Your task to perform on an android device: turn pop-ups off in chrome Image 0: 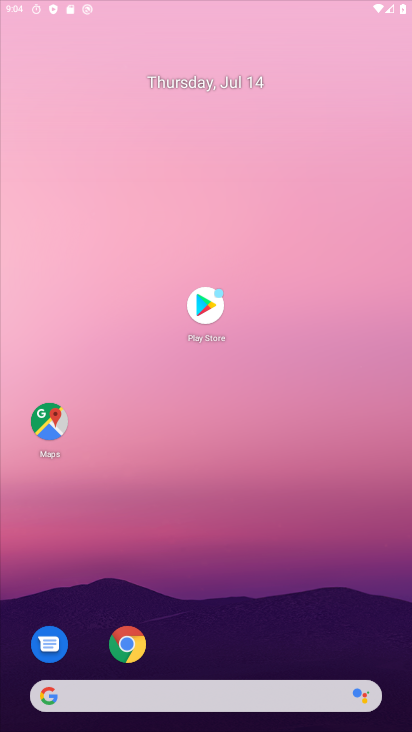
Step 0: click (316, 190)
Your task to perform on an android device: turn pop-ups off in chrome Image 1: 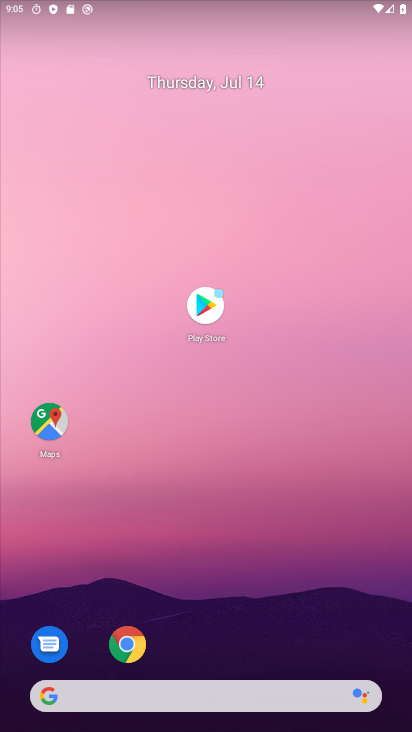
Step 1: drag from (202, 464) to (248, 94)
Your task to perform on an android device: turn pop-ups off in chrome Image 2: 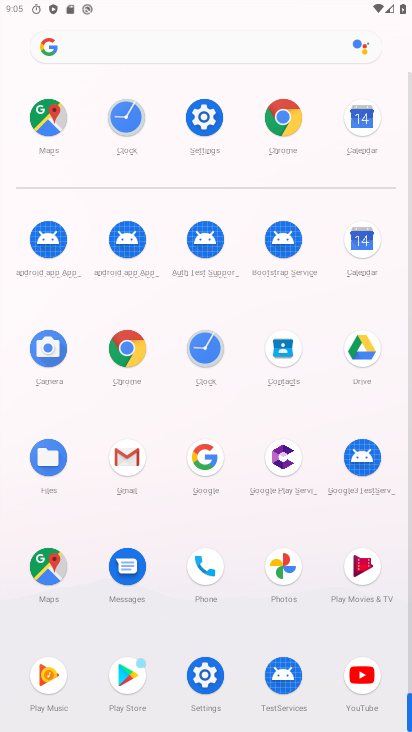
Step 2: click (122, 352)
Your task to perform on an android device: turn pop-ups off in chrome Image 3: 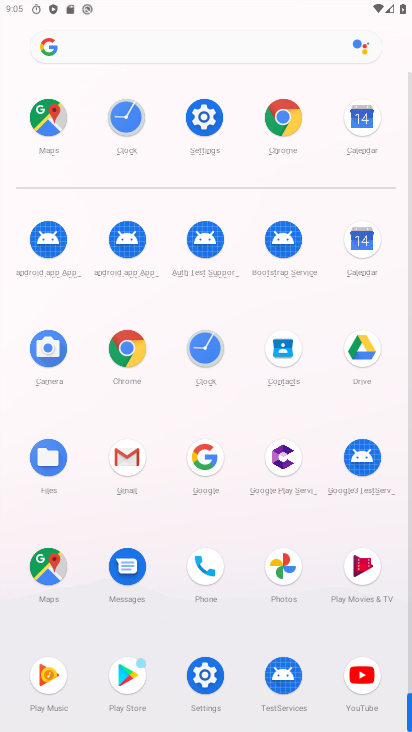
Step 3: click (124, 349)
Your task to perform on an android device: turn pop-ups off in chrome Image 4: 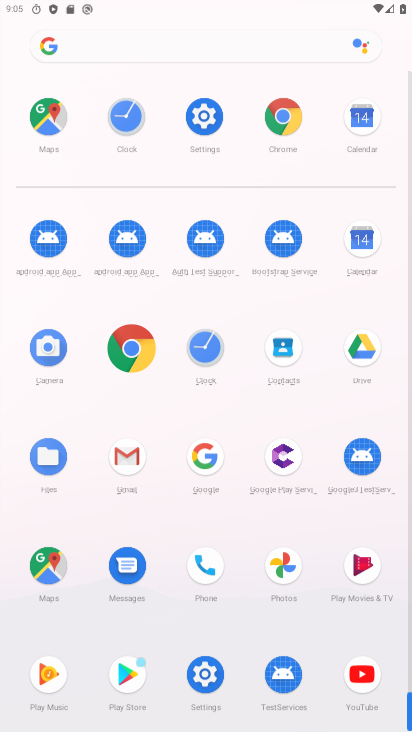
Step 4: click (124, 349)
Your task to perform on an android device: turn pop-ups off in chrome Image 5: 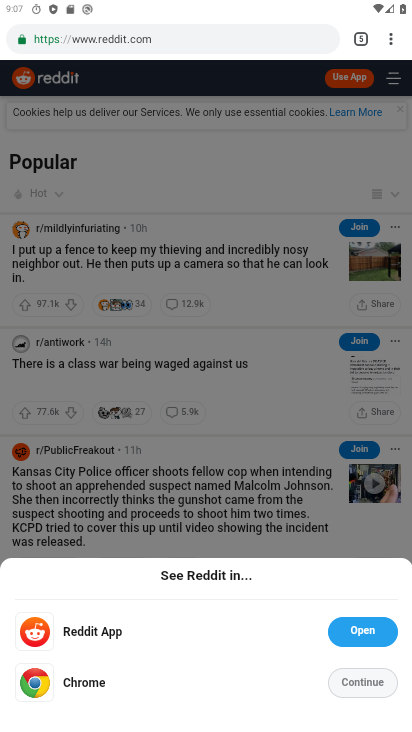
Step 5: click (392, 43)
Your task to perform on an android device: turn pop-ups off in chrome Image 6: 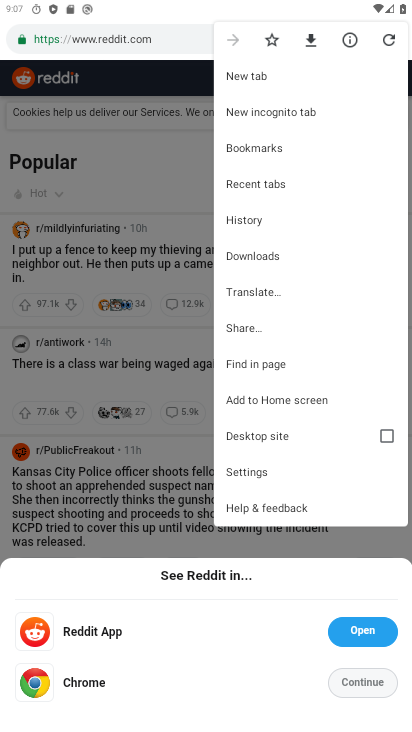
Step 6: click (258, 463)
Your task to perform on an android device: turn pop-ups off in chrome Image 7: 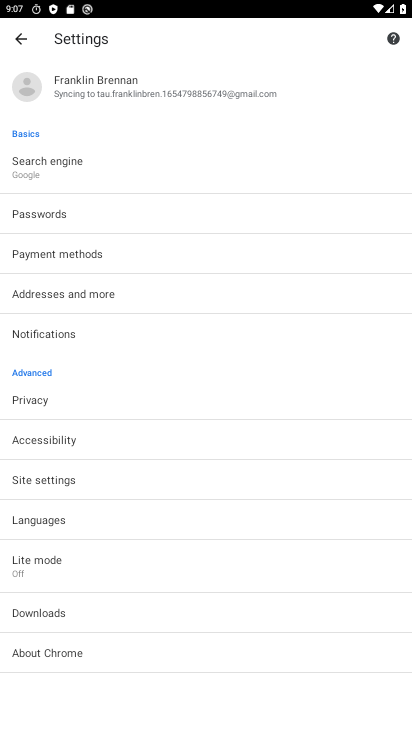
Step 7: click (68, 481)
Your task to perform on an android device: turn pop-ups off in chrome Image 8: 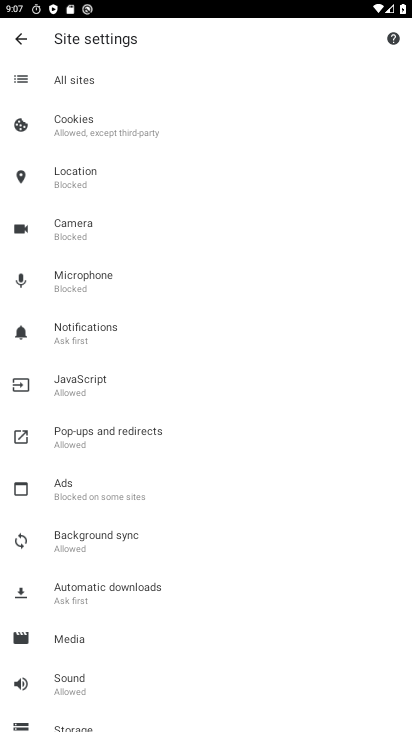
Step 8: click (90, 446)
Your task to perform on an android device: turn pop-ups off in chrome Image 9: 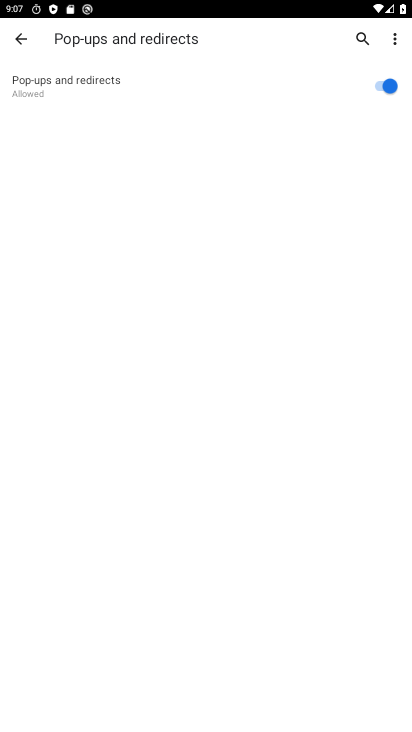
Step 9: click (379, 76)
Your task to perform on an android device: turn pop-ups off in chrome Image 10: 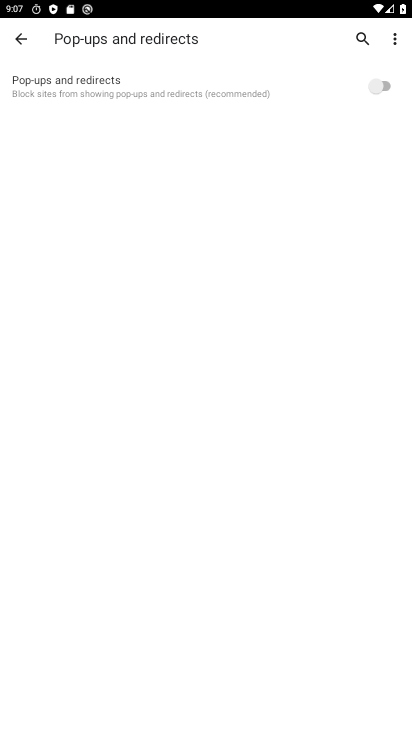
Step 10: task complete